Your task to perform on an android device: Open settings Image 0: 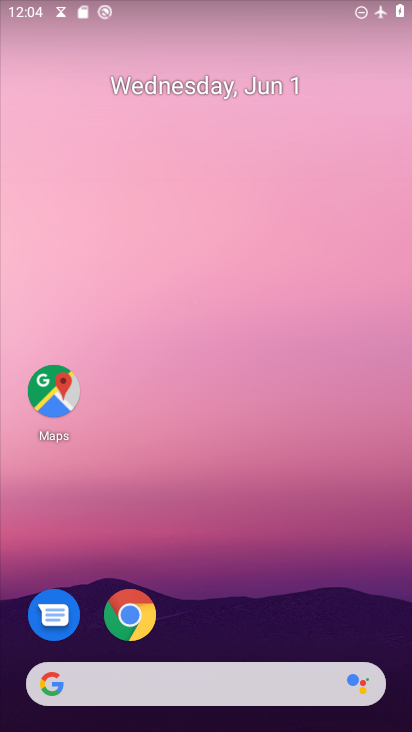
Step 0: drag from (154, 696) to (270, 35)
Your task to perform on an android device: Open settings Image 1: 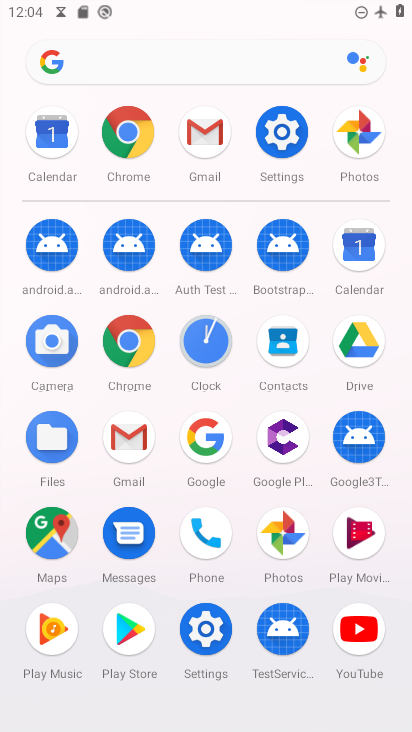
Step 1: click (268, 141)
Your task to perform on an android device: Open settings Image 2: 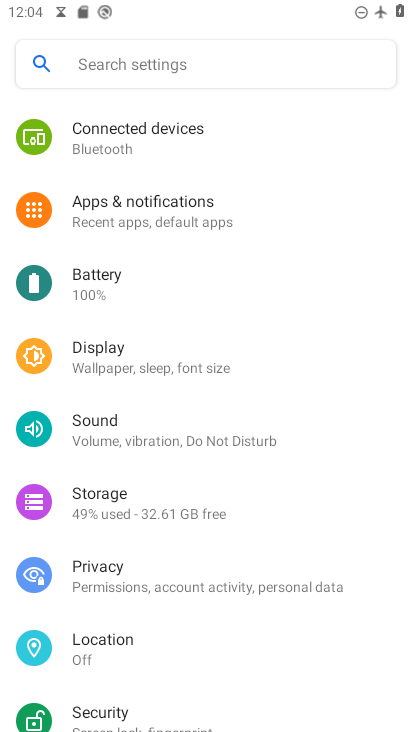
Step 2: task complete